Your task to perform on an android device: check the backup settings in the google photos Image 0: 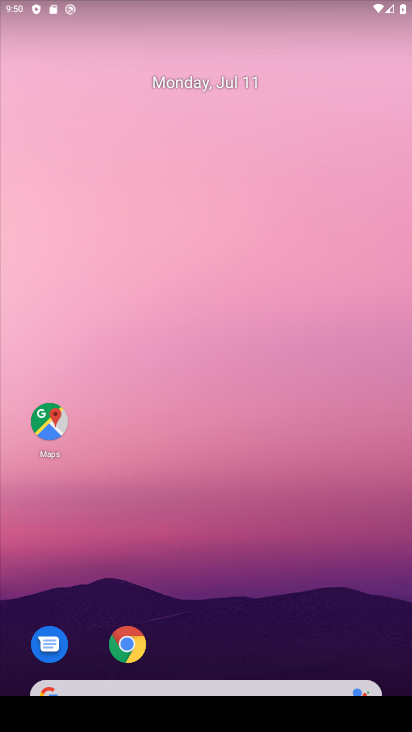
Step 0: drag from (319, 607) to (314, 144)
Your task to perform on an android device: check the backup settings in the google photos Image 1: 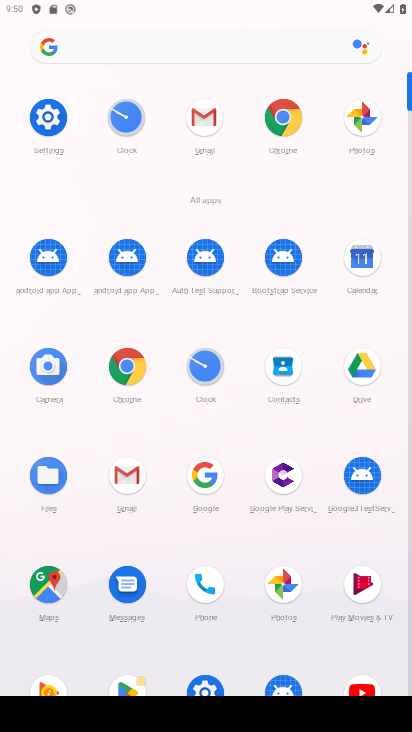
Step 1: click (365, 116)
Your task to perform on an android device: check the backup settings in the google photos Image 2: 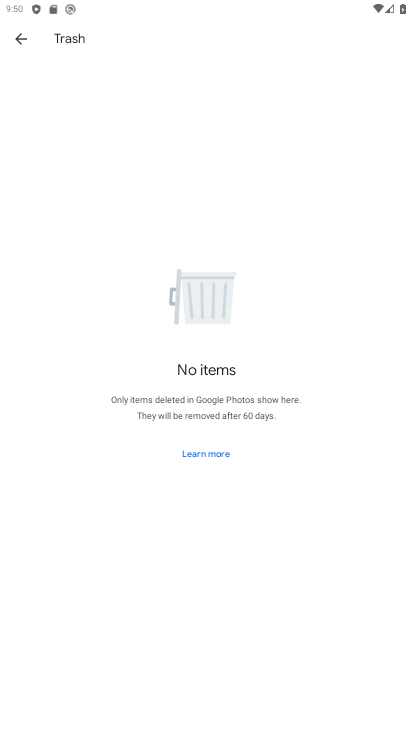
Step 2: click (15, 36)
Your task to perform on an android device: check the backup settings in the google photos Image 3: 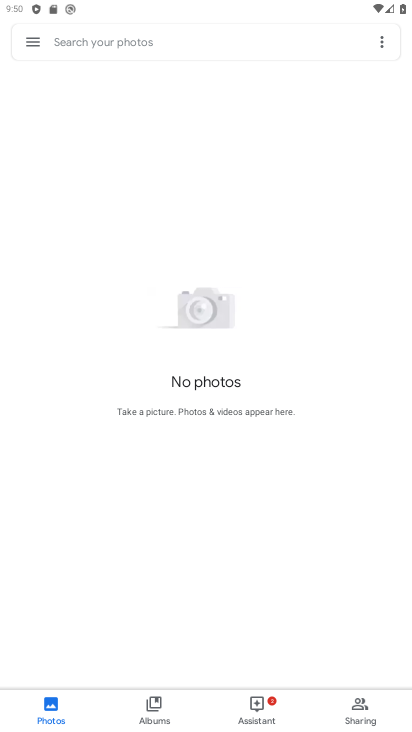
Step 3: click (37, 40)
Your task to perform on an android device: check the backup settings in the google photos Image 4: 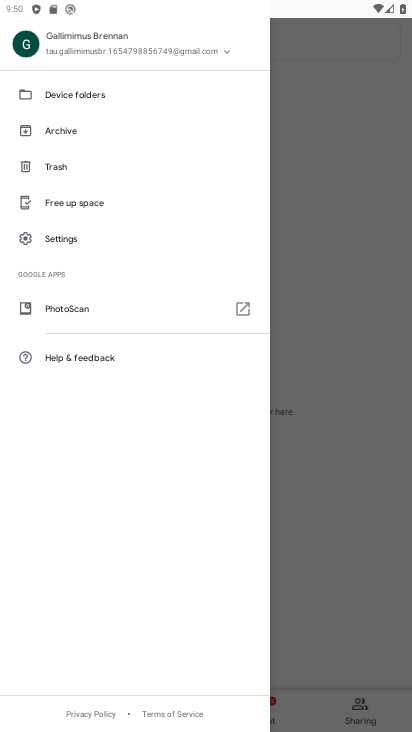
Step 4: click (72, 235)
Your task to perform on an android device: check the backup settings in the google photos Image 5: 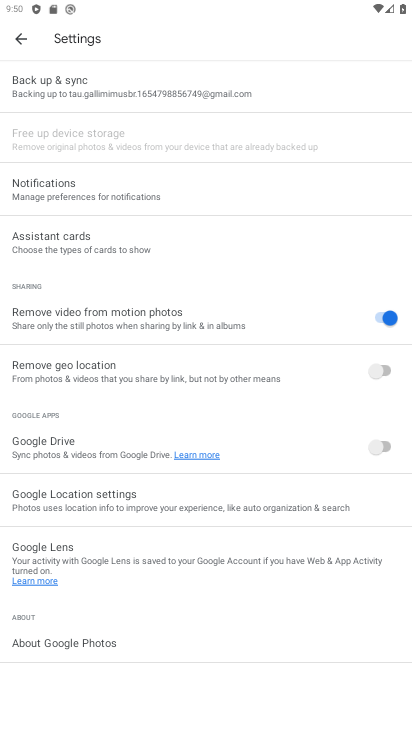
Step 5: click (129, 92)
Your task to perform on an android device: check the backup settings in the google photos Image 6: 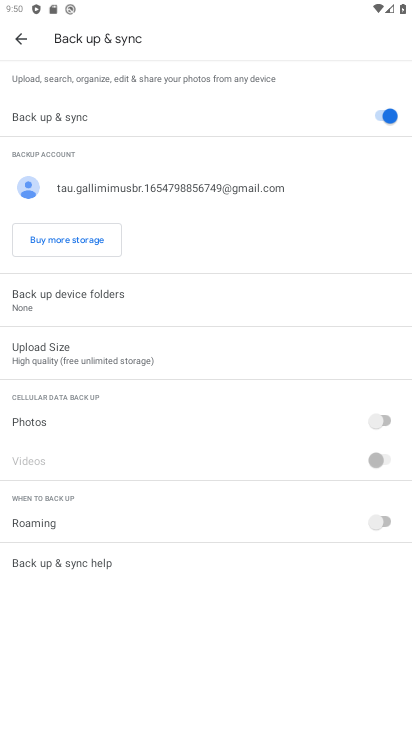
Step 6: task complete